Your task to perform on an android device: turn on javascript in the chrome app Image 0: 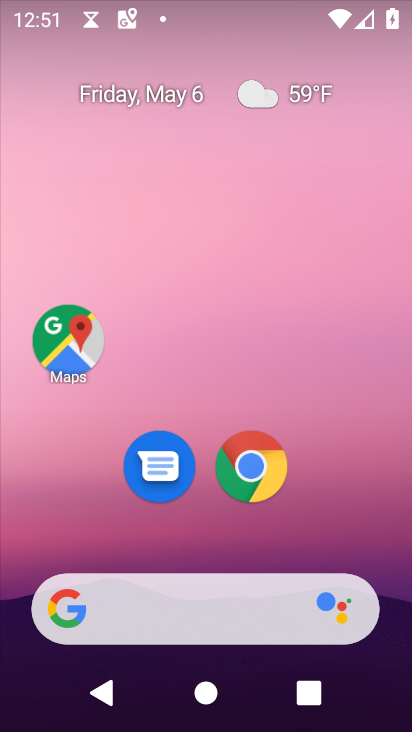
Step 0: click (279, 481)
Your task to perform on an android device: turn on javascript in the chrome app Image 1: 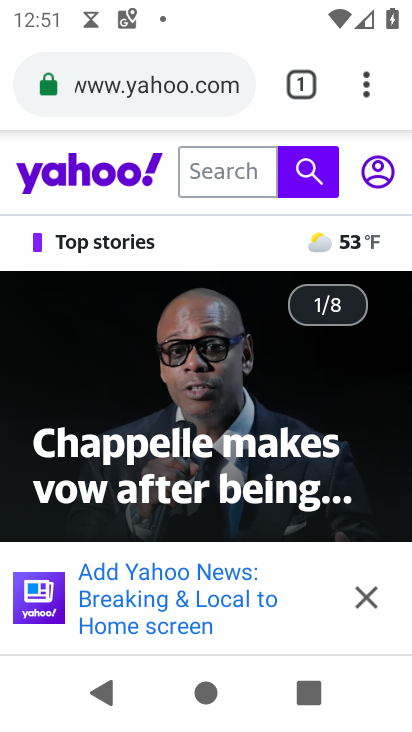
Step 1: drag from (372, 102) to (186, 522)
Your task to perform on an android device: turn on javascript in the chrome app Image 2: 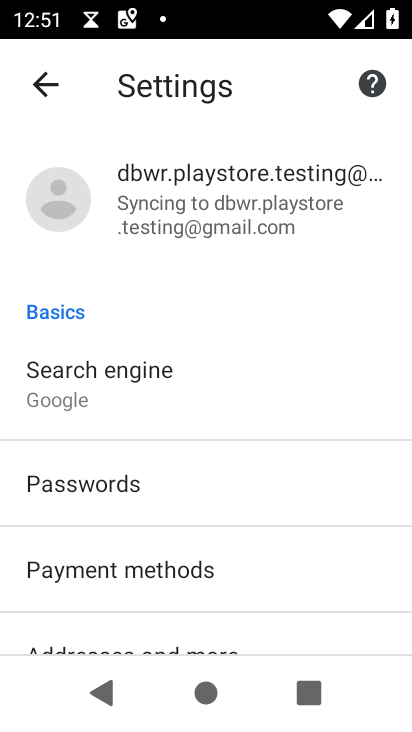
Step 2: drag from (229, 580) to (246, 169)
Your task to perform on an android device: turn on javascript in the chrome app Image 3: 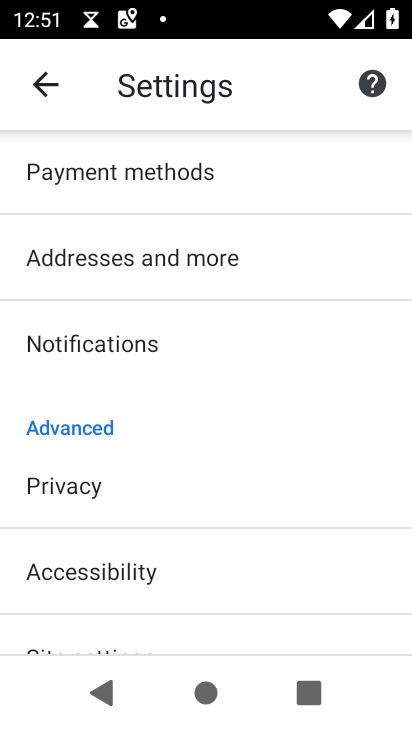
Step 3: drag from (307, 569) to (305, 255)
Your task to perform on an android device: turn on javascript in the chrome app Image 4: 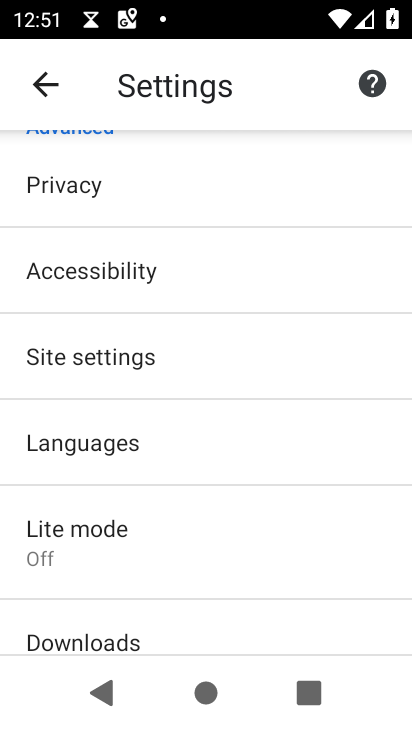
Step 4: click (292, 353)
Your task to perform on an android device: turn on javascript in the chrome app Image 5: 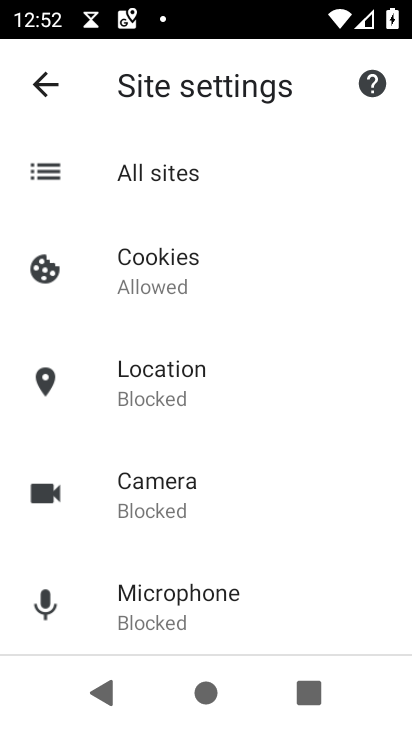
Step 5: drag from (312, 566) to (271, 211)
Your task to perform on an android device: turn on javascript in the chrome app Image 6: 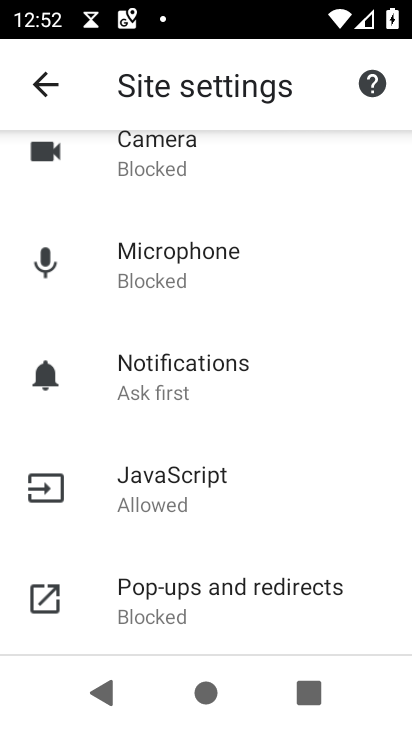
Step 6: click (299, 482)
Your task to perform on an android device: turn on javascript in the chrome app Image 7: 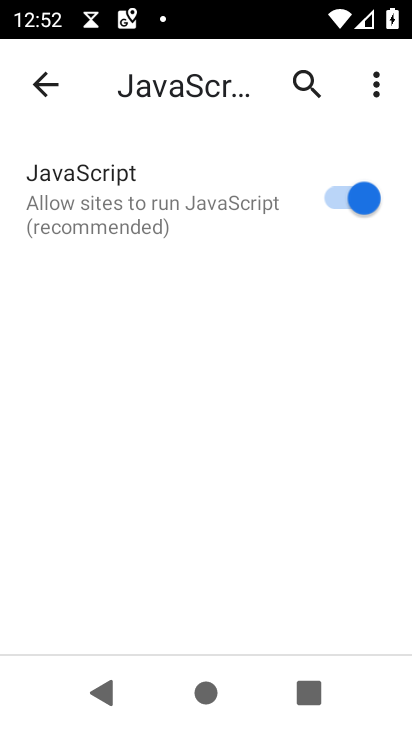
Step 7: task complete